Your task to perform on an android device: Open Android settings Image 0: 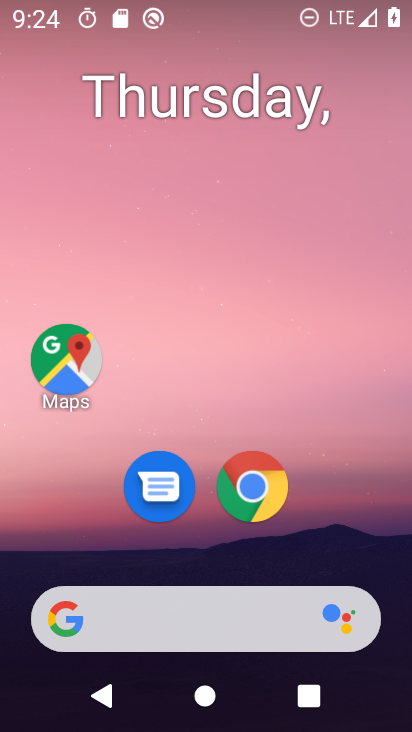
Step 0: click (255, 30)
Your task to perform on an android device: Open Android settings Image 1: 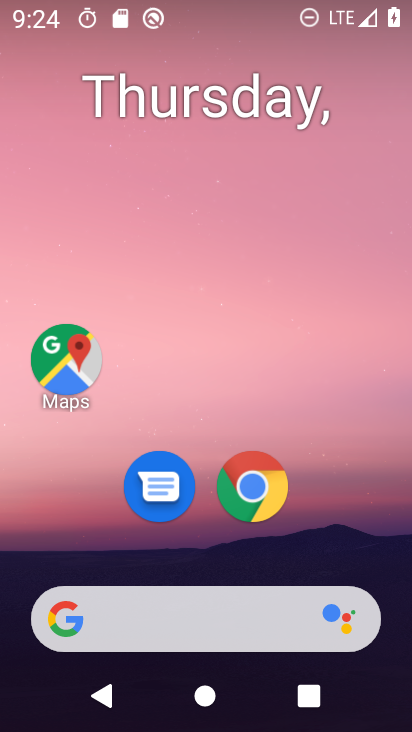
Step 1: drag from (105, 524) to (235, 5)
Your task to perform on an android device: Open Android settings Image 2: 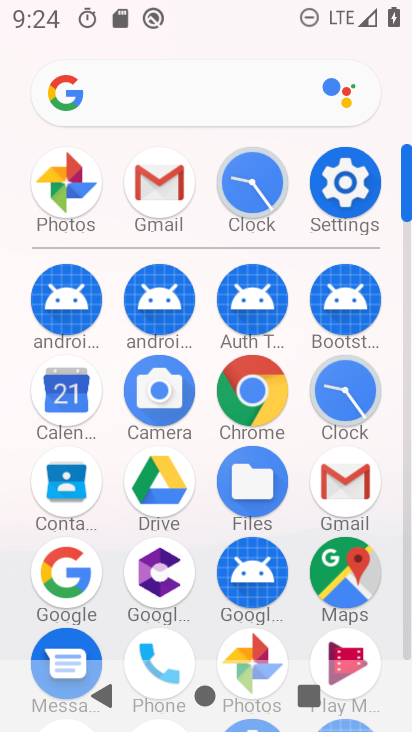
Step 2: click (344, 179)
Your task to perform on an android device: Open Android settings Image 3: 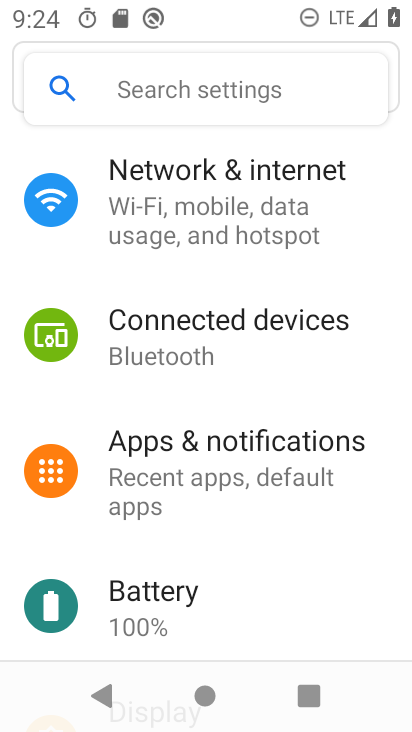
Step 3: drag from (149, 616) to (271, 22)
Your task to perform on an android device: Open Android settings Image 4: 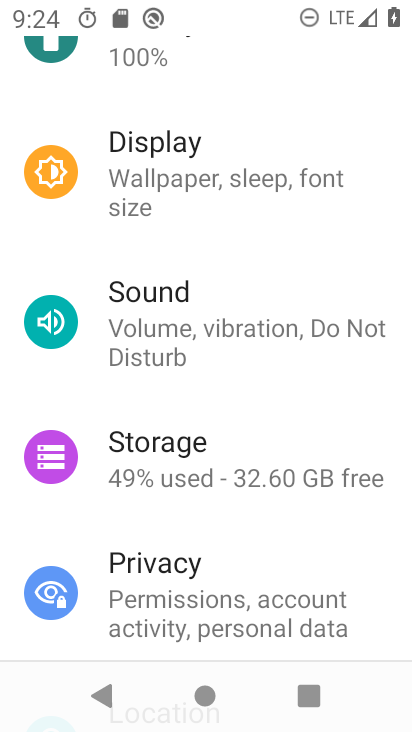
Step 4: drag from (213, 607) to (326, 38)
Your task to perform on an android device: Open Android settings Image 5: 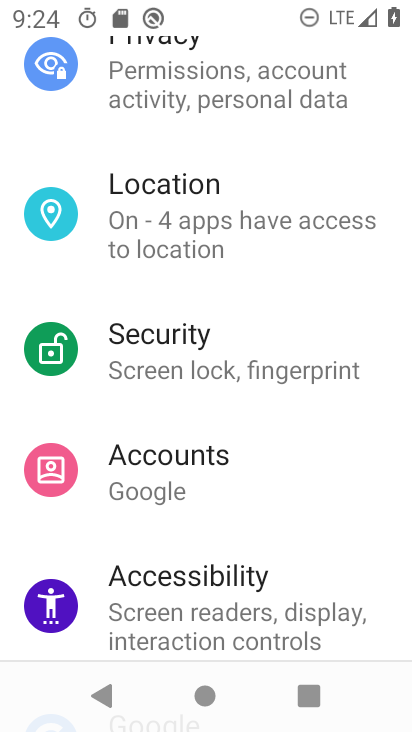
Step 5: drag from (177, 648) to (279, 14)
Your task to perform on an android device: Open Android settings Image 6: 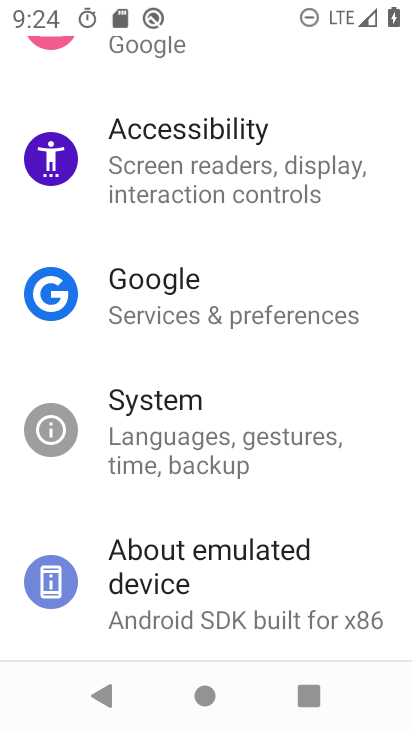
Step 6: drag from (173, 619) to (257, 83)
Your task to perform on an android device: Open Android settings Image 7: 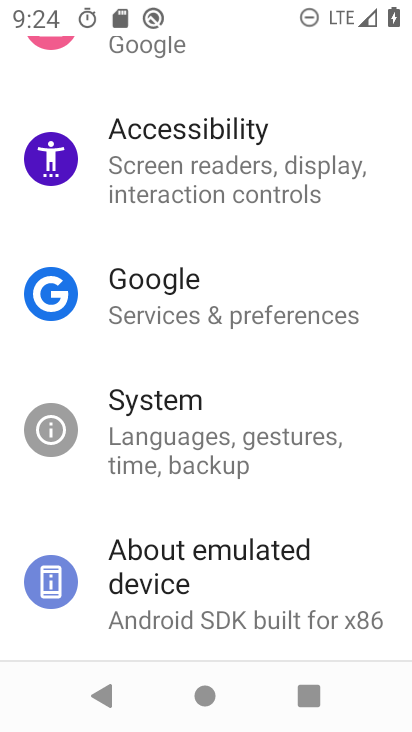
Step 7: click (167, 560)
Your task to perform on an android device: Open Android settings Image 8: 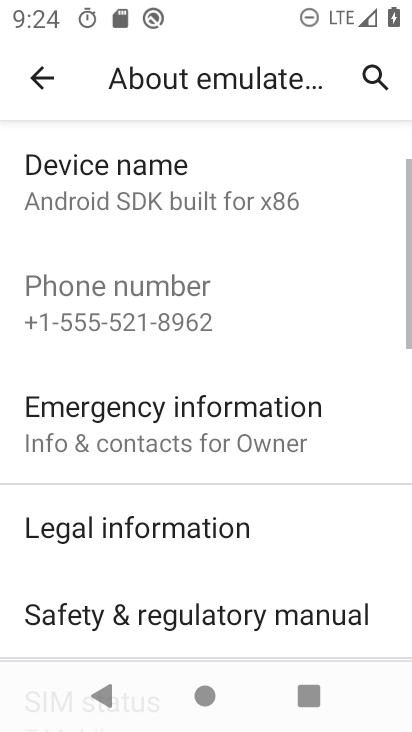
Step 8: drag from (154, 596) to (216, 86)
Your task to perform on an android device: Open Android settings Image 9: 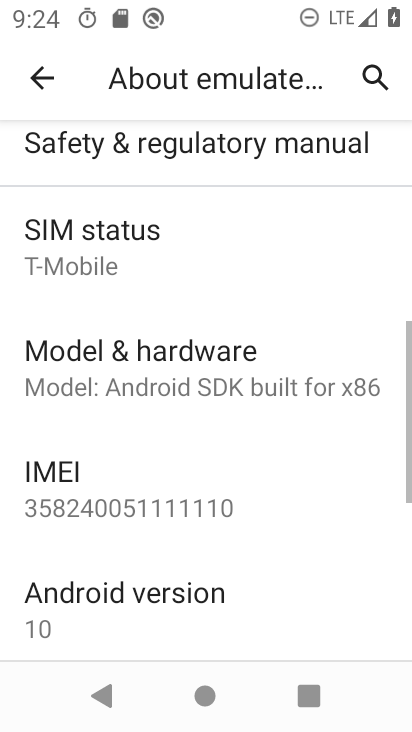
Step 9: click (148, 608)
Your task to perform on an android device: Open Android settings Image 10: 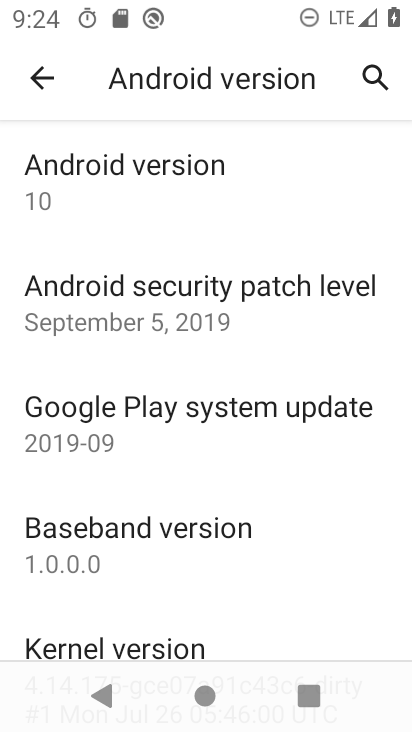
Step 10: task complete